Your task to perform on an android device: turn on showing notifications on the lock screen Image 0: 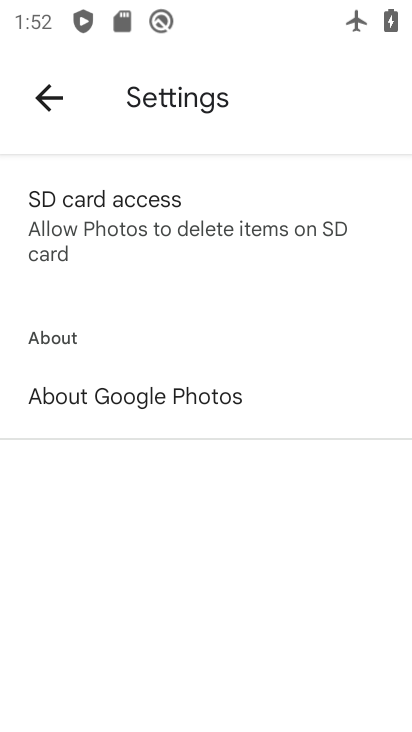
Step 0: press home button
Your task to perform on an android device: turn on showing notifications on the lock screen Image 1: 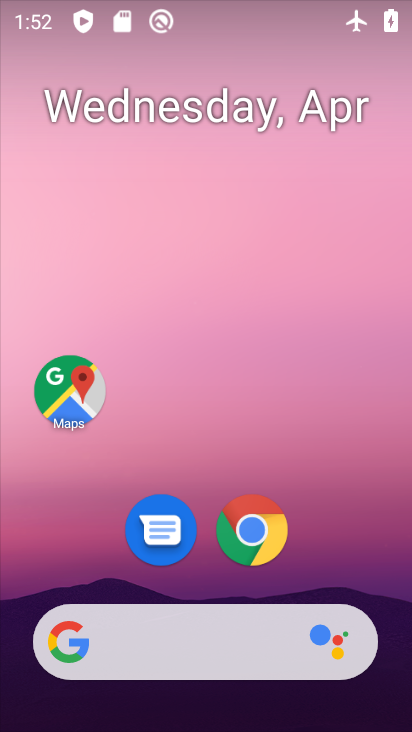
Step 1: drag from (367, 552) to (363, 123)
Your task to perform on an android device: turn on showing notifications on the lock screen Image 2: 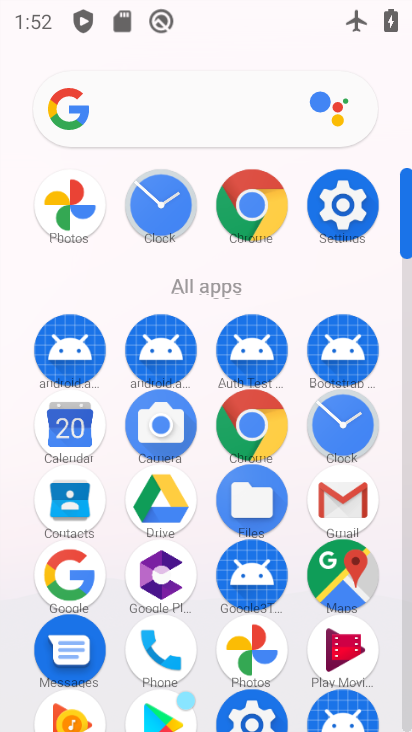
Step 2: click (358, 214)
Your task to perform on an android device: turn on showing notifications on the lock screen Image 3: 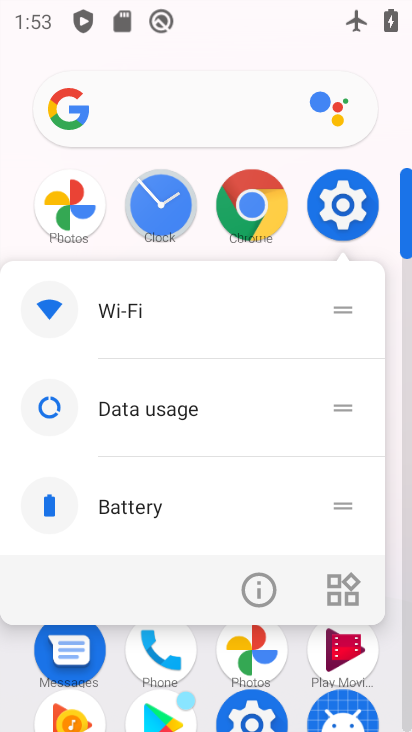
Step 3: click (358, 214)
Your task to perform on an android device: turn on showing notifications on the lock screen Image 4: 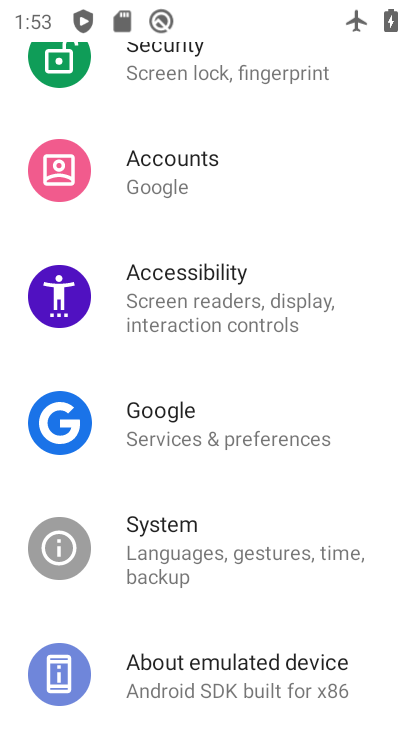
Step 4: drag from (353, 207) to (273, 582)
Your task to perform on an android device: turn on showing notifications on the lock screen Image 5: 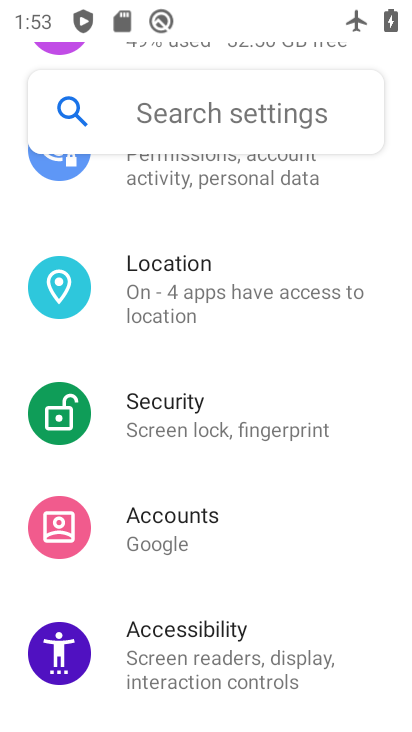
Step 5: drag from (275, 261) to (257, 501)
Your task to perform on an android device: turn on showing notifications on the lock screen Image 6: 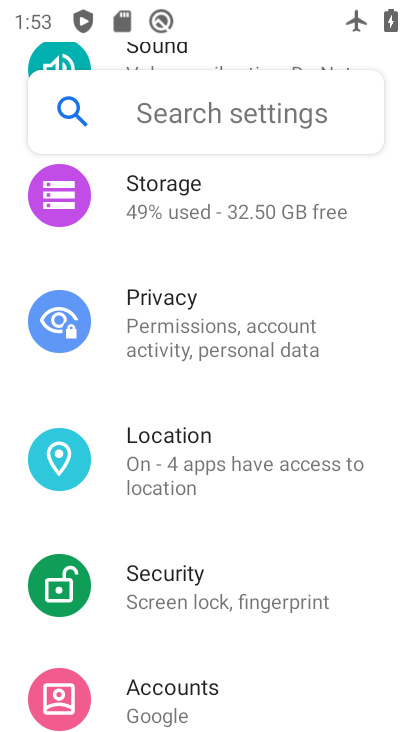
Step 6: drag from (271, 218) to (246, 625)
Your task to perform on an android device: turn on showing notifications on the lock screen Image 7: 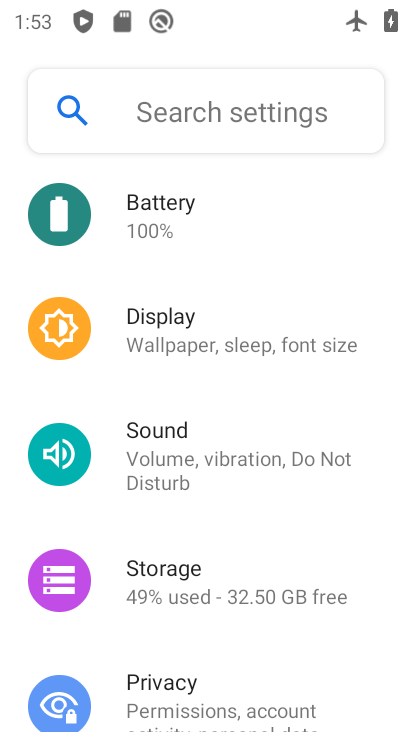
Step 7: drag from (271, 208) to (246, 576)
Your task to perform on an android device: turn on showing notifications on the lock screen Image 8: 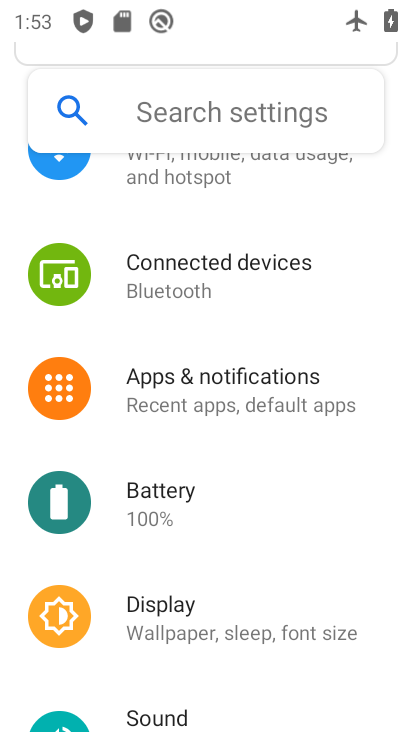
Step 8: click (235, 382)
Your task to perform on an android device: turn on showing notifications on the lock screen Image 9: 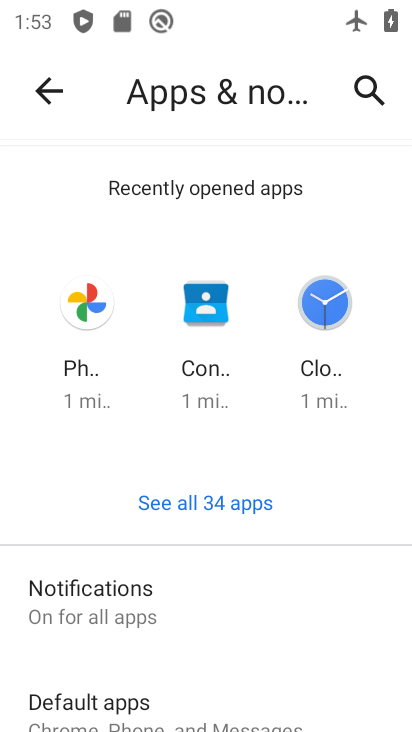
Step 9: click (157, 602)
Your task to perform on an android device: turn on showing notifications on the lock screen Image 10: 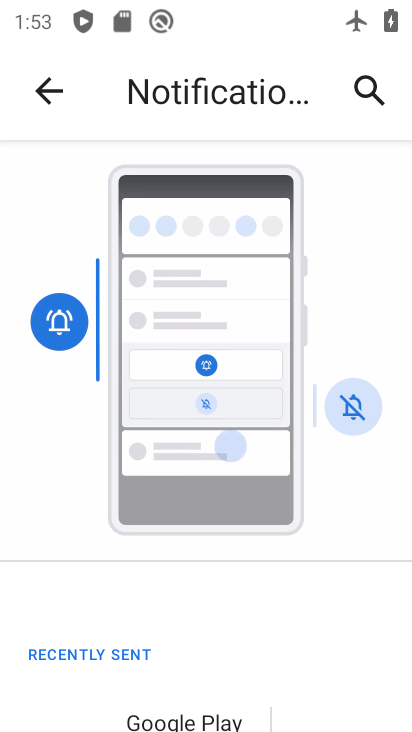
Step 10: drag from (315, 561) to (353, 422)
Your task to perform on an android device: turn on showing notifications on the lock screen Image 11: 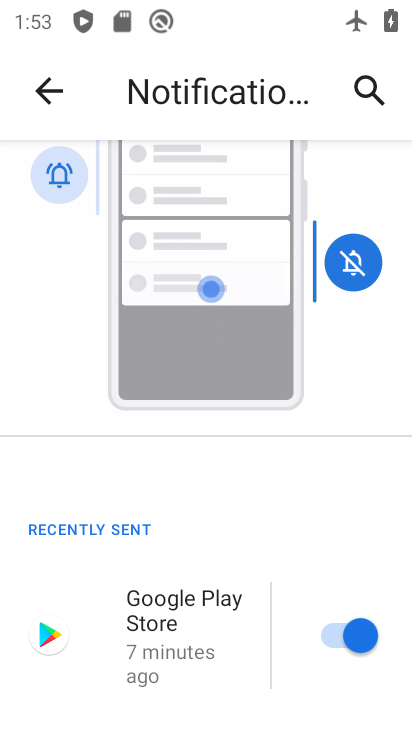
Step 11: drag from (298, 549) to (299, 208)
Your task to perform on an android device: turn on showing notifications on the lock screen Image 12: 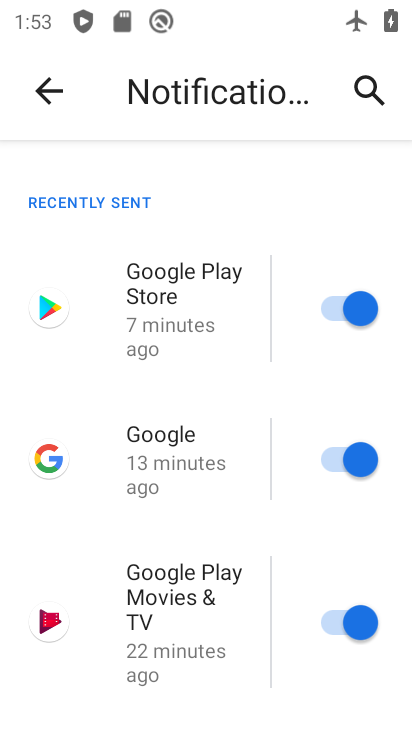
Step 12: drag from (298, 542) to (314, 198)
Your task to perform on an android device: turn on showing notifications on the lock screen Image 13: 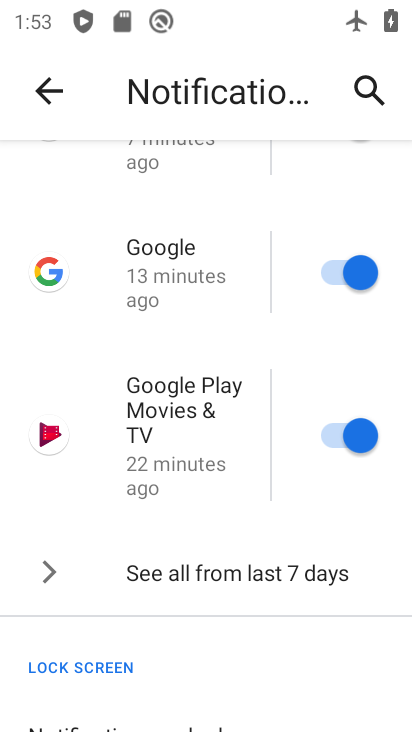
Step 13: drag from (363, 627) to (365, 246)
Your task to perform on an android device: turn on showing notifications on the lock screen Image 14: 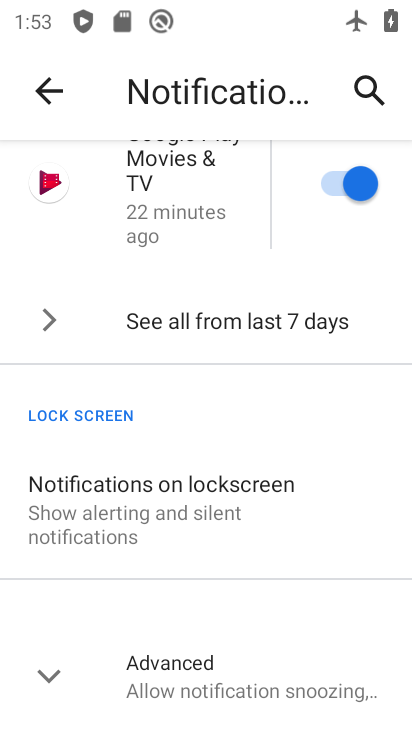
Step 14: click (191, 522)
Your task to perform on an android device: turn on showing notifications on the lock screen Image 15: 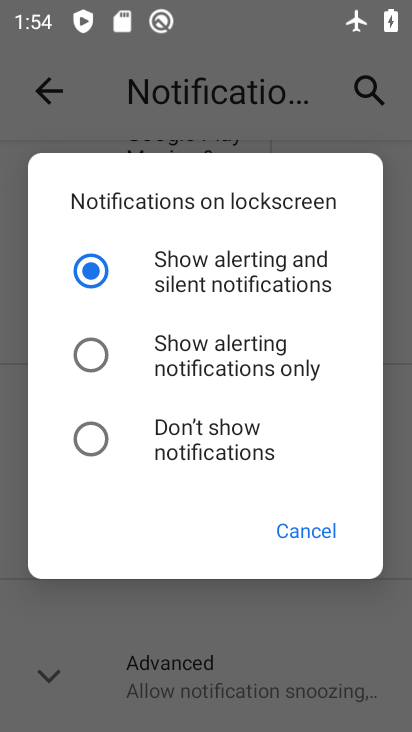
Step 15: task complete